Your task to perform on an android device: change notification settings in the gmail app Image 0: 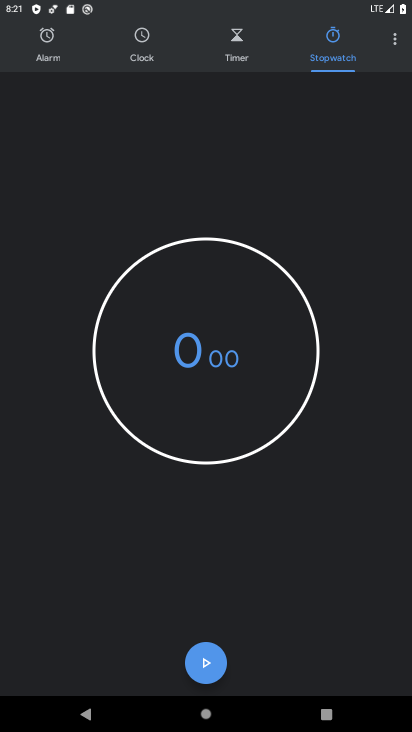
Step 0: press home button
Your task to perform on an android device: change notification settings in the gmail app Image 1: 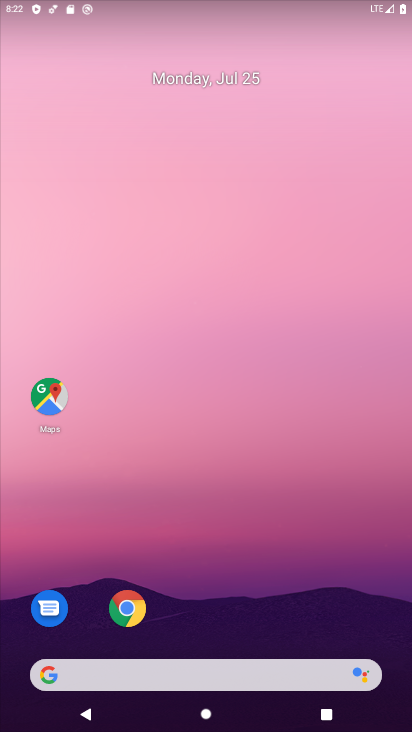
Step 1: drag from (227, 629) to (234, 186)
Your task to perform on an android device: change notification settings in the gmail app Image 2: 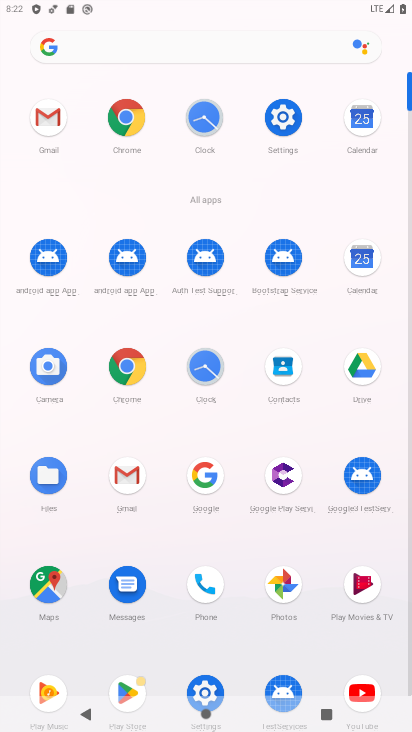
Step 2: click (135, 472)
Your task to perform on an android device: change notification settings in the gmail app Image 3: 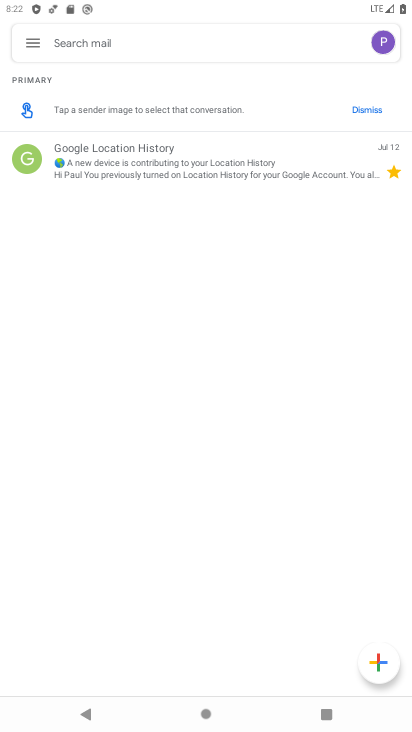
Step 3: click (36, 40)
Your task to perform on an android device: change notification settings in the gmail app Image 4: 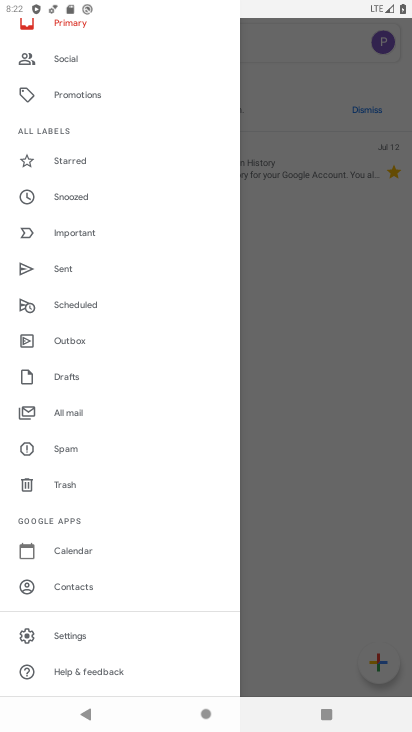
Step 4: click (59, 630)
Your task to perform on an android device: change notification settings in the gmail app Image 5: 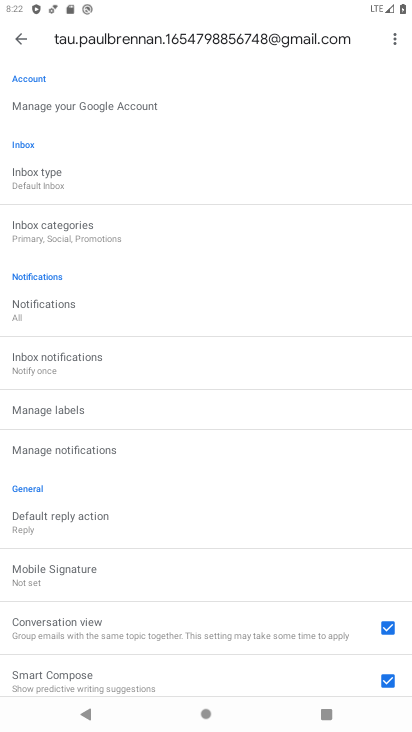
Step 5: click (30, 305)
Your task to perform on an android device: change notification settings in the gmail app Image 6: 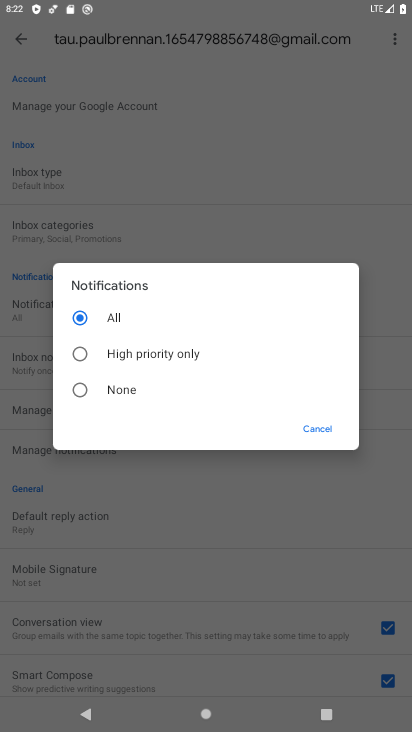
Step 6: click (82, 356)
Your task to perform on an android device: change notification settings in the gmail app Image 7: 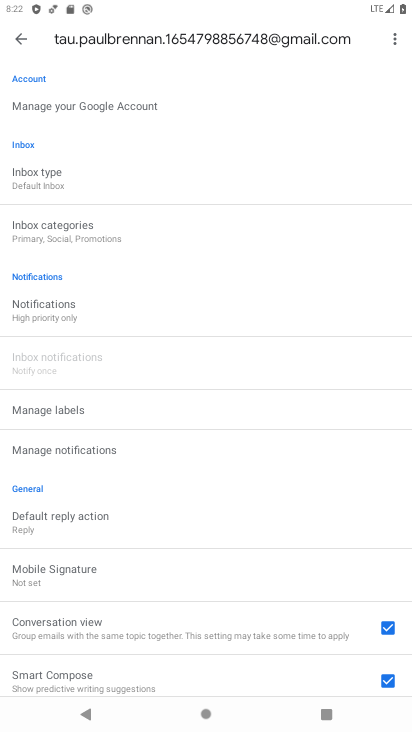
Step 7: task complete